Your task to perform on an android device: turn on airplane mode Image 0: 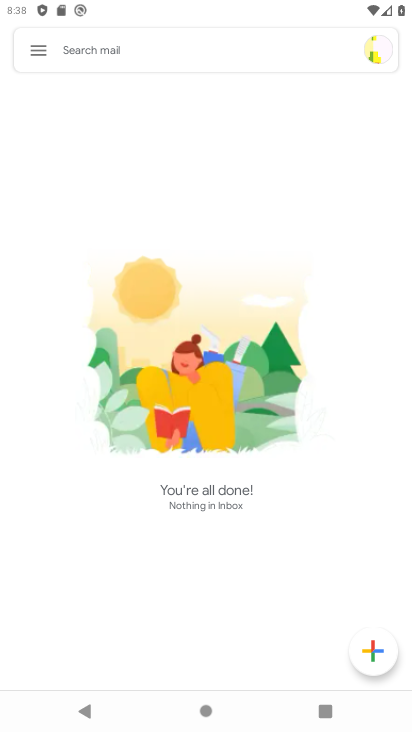
Step 0: press back button
Your task to perform on an android device: turn on airplane mode Image 1: 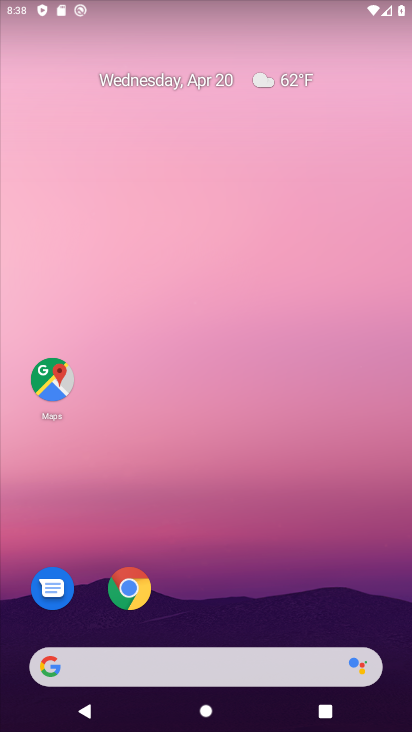
Step 1: drag from (332, 556) to (165, 1)
Your task to perform on an android device: turn on airplane mode Image 2: 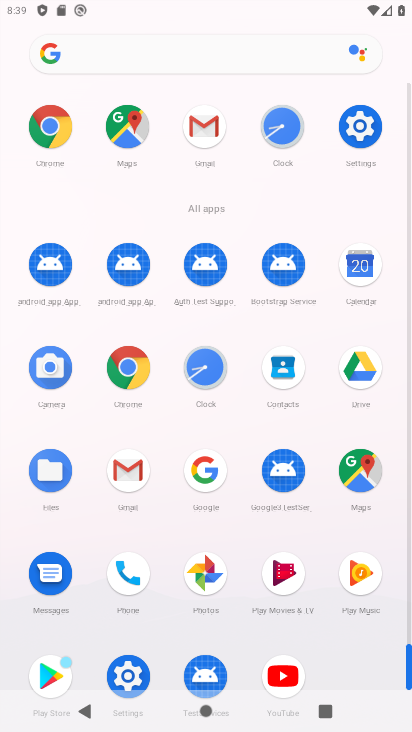
Step 2: click (359, 126)
Your task to perform on an android device: turn on airplane mode Image 3: 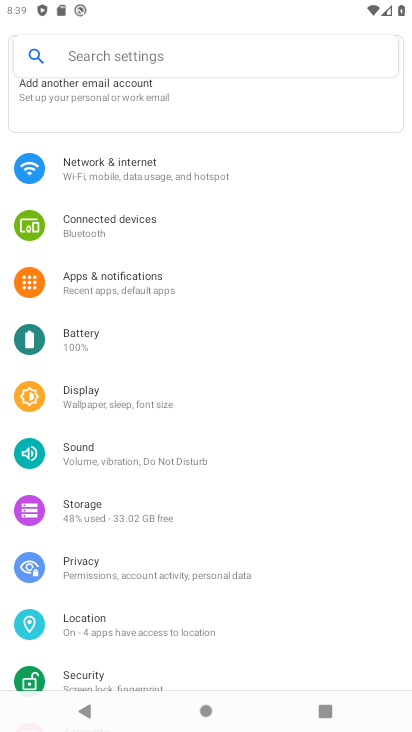
Step 3: drag from (228, 142) to (242, 542)
Your task to perform on an android device: turn on airplane mode Image 4: 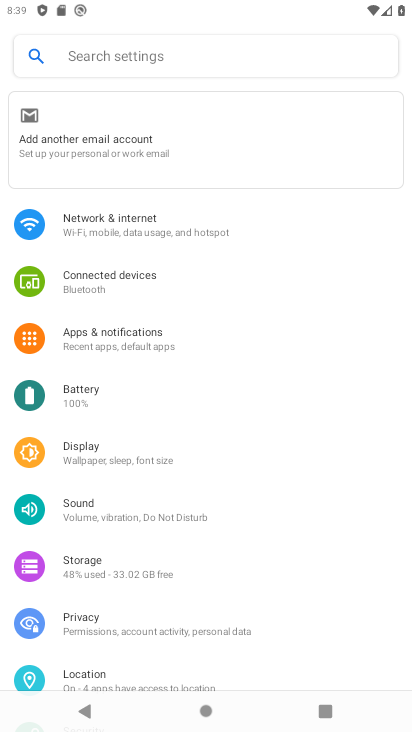
Step 4: click (192, 227)
Your task to perform on an android device: turn on airplane mode Image 5: 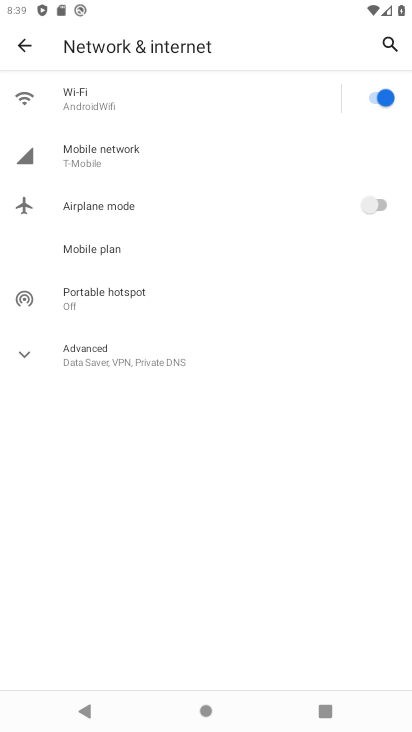
Step 5: click (38, 356)
Your task to perform on an android device: turn on airplane mode Image 6: 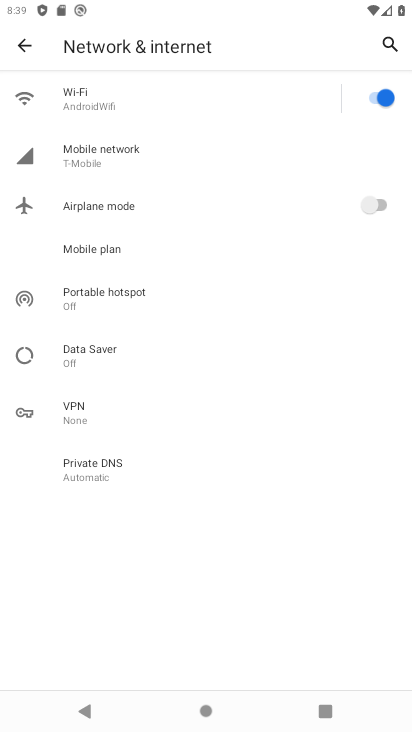
Step 6: click (376, 204)
Your task to perform on an android device: turn on airplane mode Image 7: 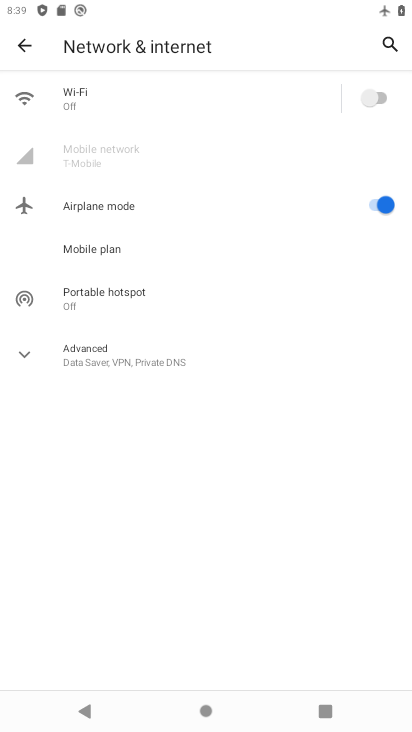
Step 7: task complete